Your task to perform on an android device: turn off location Image 0: 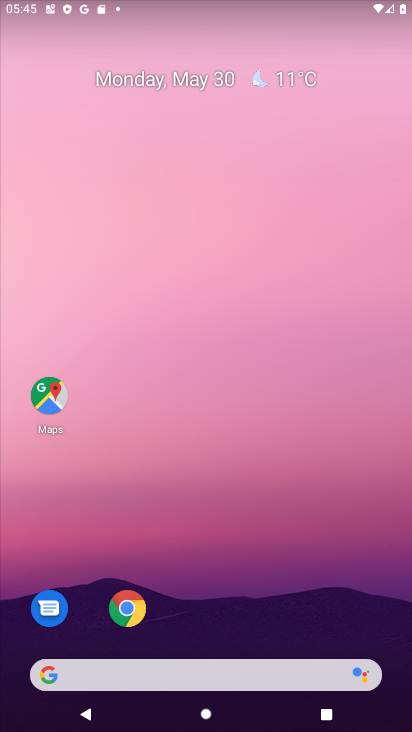
Step 0: drag from (210, 574) to (195, 166)
Your task to perform on an android device: turn off location Image 1: 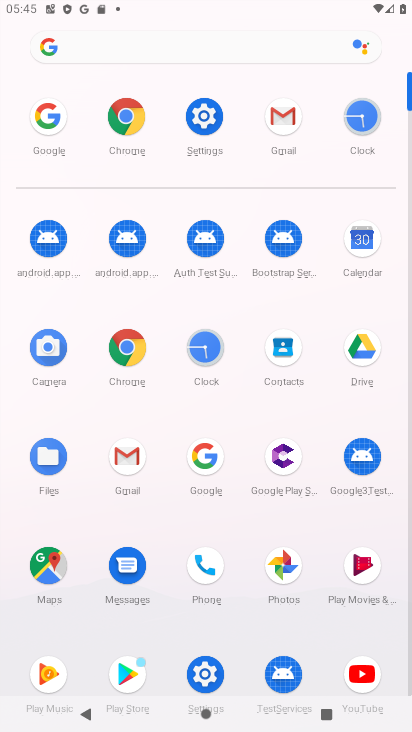
Step 1: click (212, 102)
Your task to perform on an android device: turn off location Image 2: 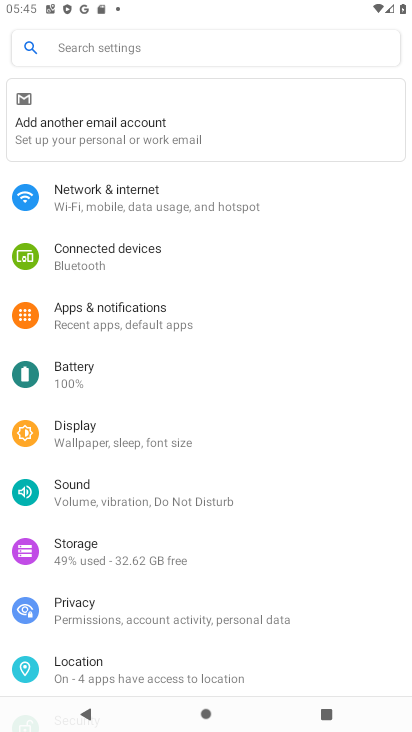
Step 2: click (96, 667)
Your task to perform on an android device: turn off location Image 3: 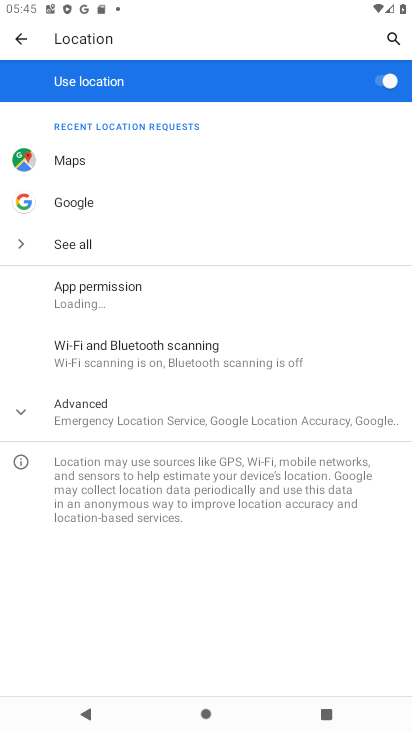
Step 3: click (384, 76)
Your task to perform on an android device: turn off location Image 4: 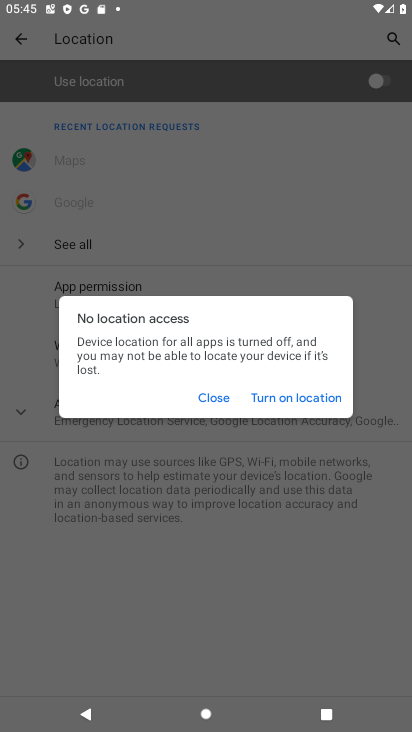
Step 4: task complete